Your task to perform on an android device: open app "Google Home" Image 0: 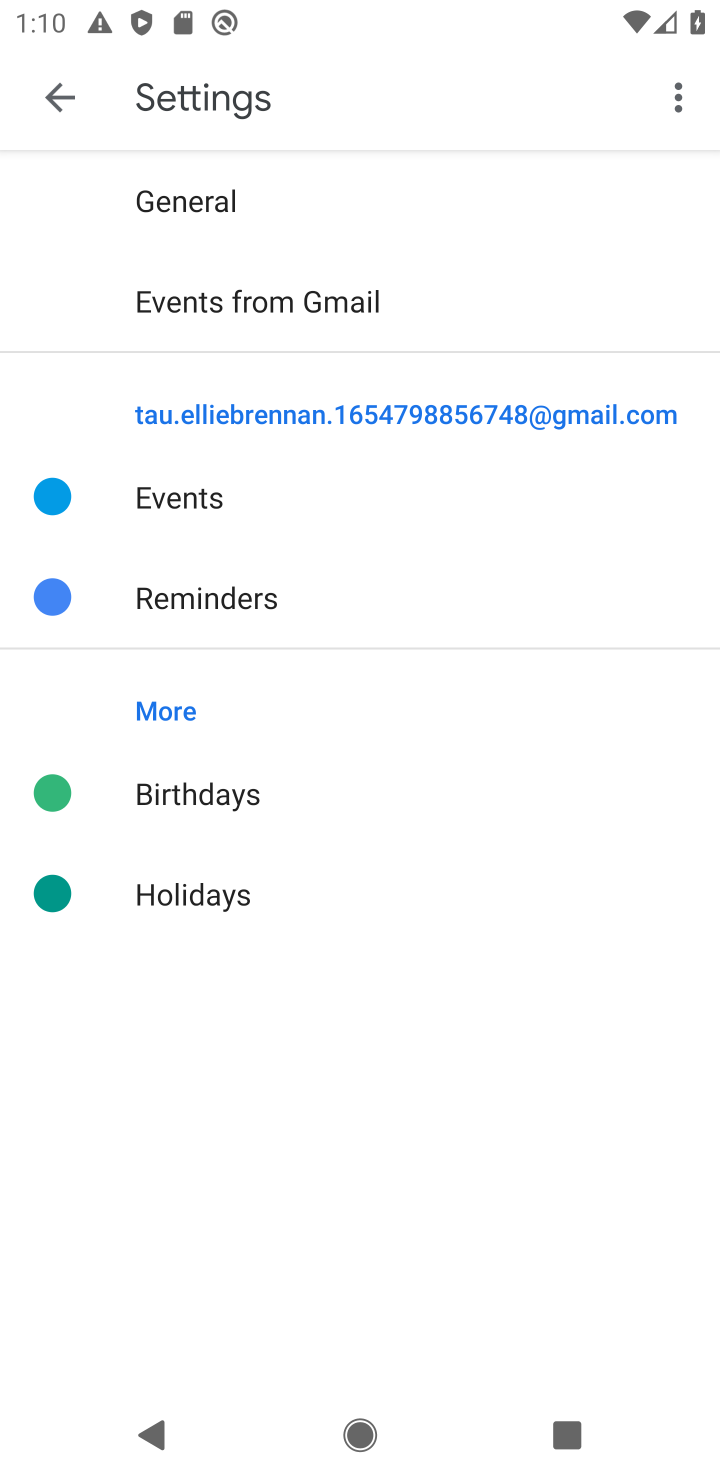
Step 0: press home button
Your task to perform on an android device: open app "Google Home" Image 1: 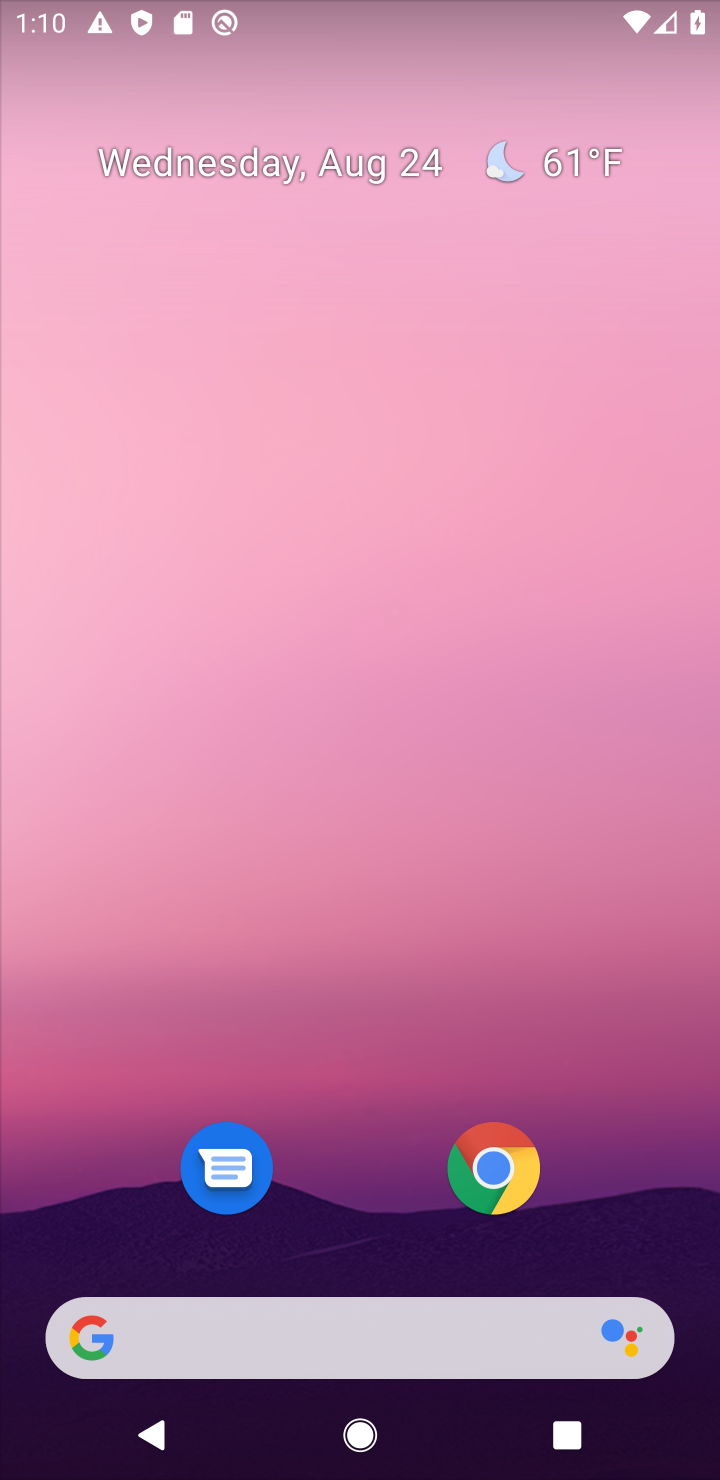
Step 1: drag from (568, 681) to (527, 126)
Your task to perform on an android device: open app "Google Home" Image 2: 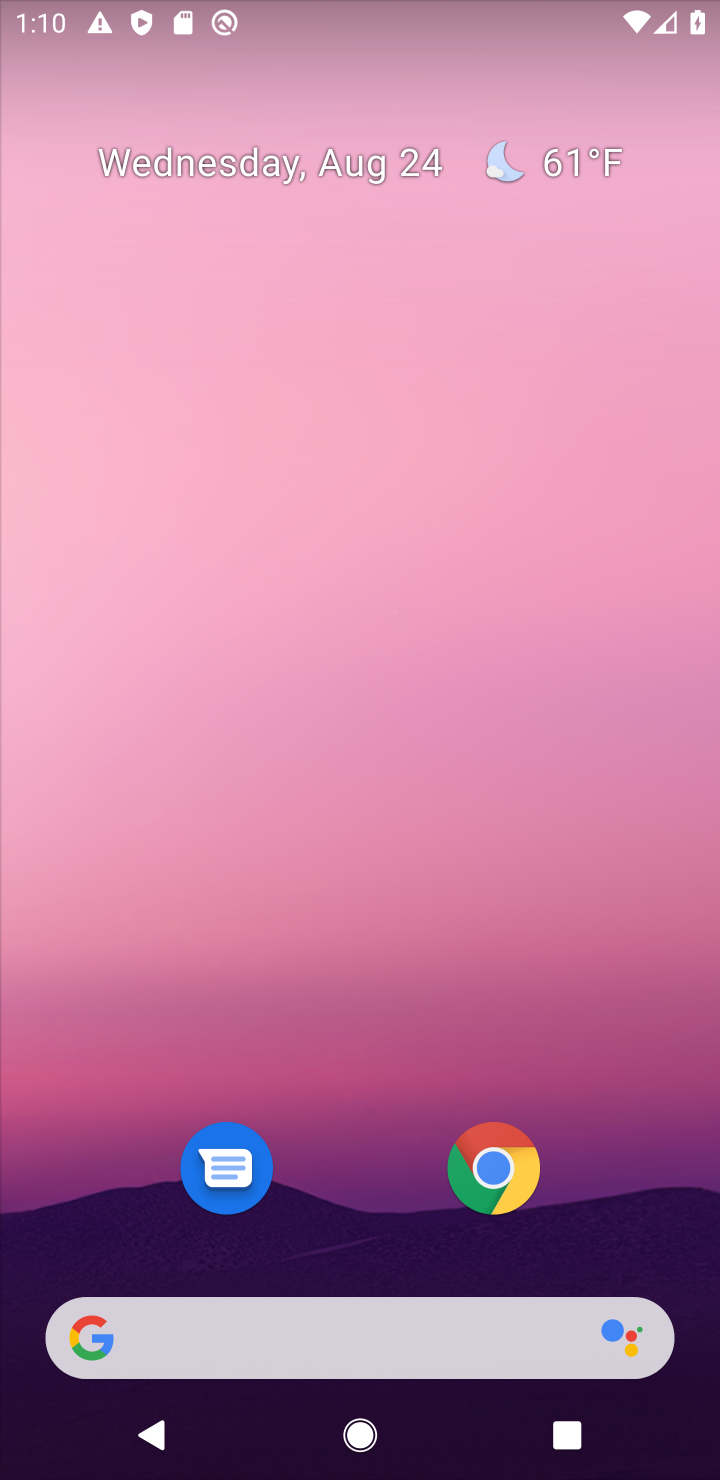
Step 2: drag from (679, 1334) to (611, 335)
Your task to perform on an android device: open app "Google Home" Image 3: 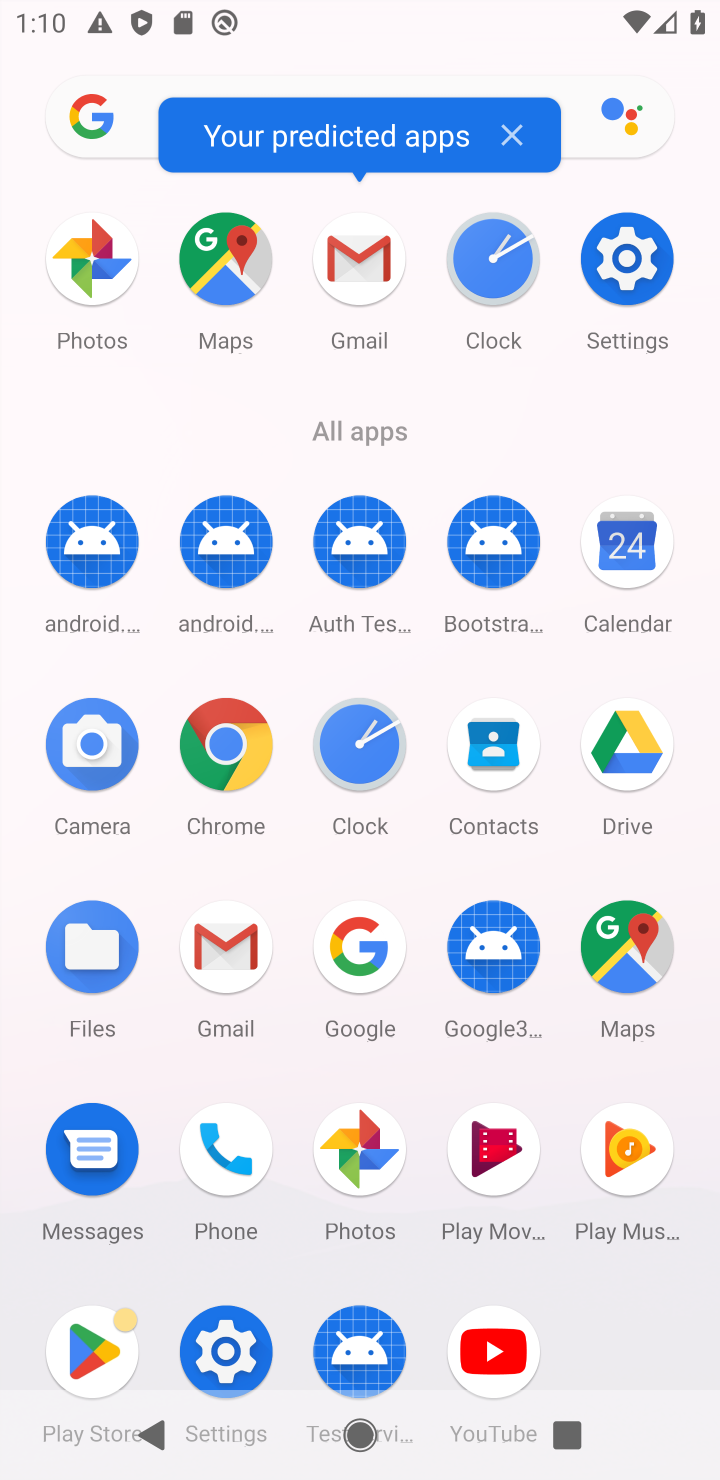
Step 3: click (93, 1359)
Your task to perform on an android device: open app "Google Home" Image 4: 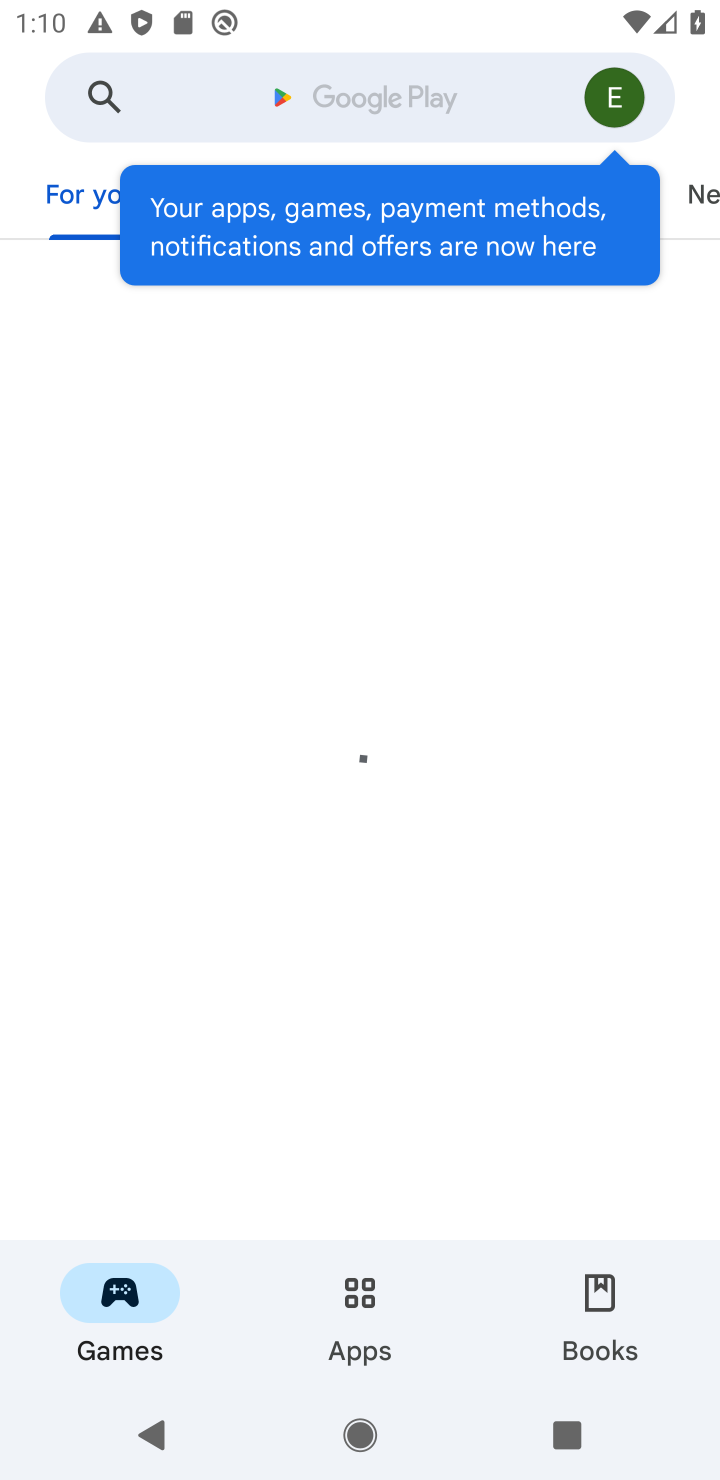
Step 4: click (107, 84)
Your task to perform on an android device: open app "Google Home" Image 5: 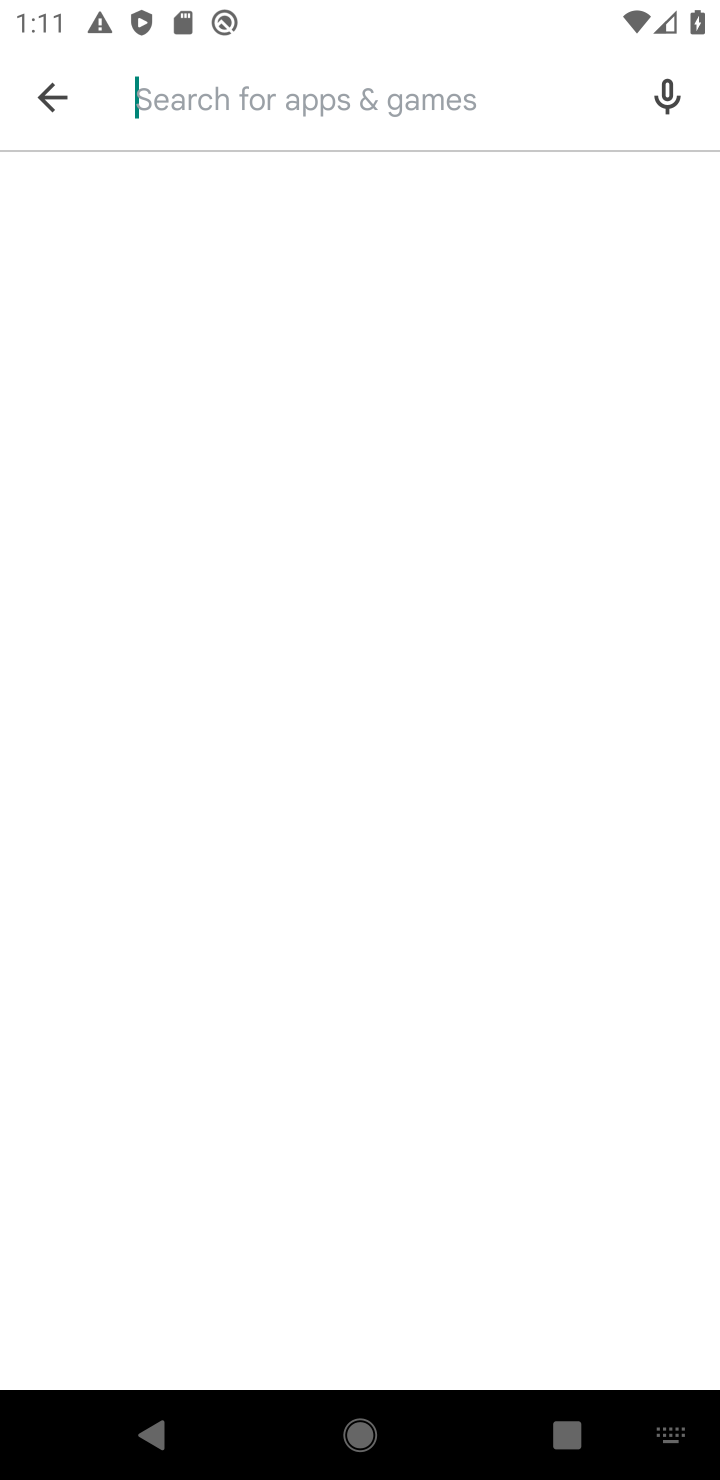
Step 5: type "Google Home"
Your task to perform on an android device: open app "Google Home" Image 6: 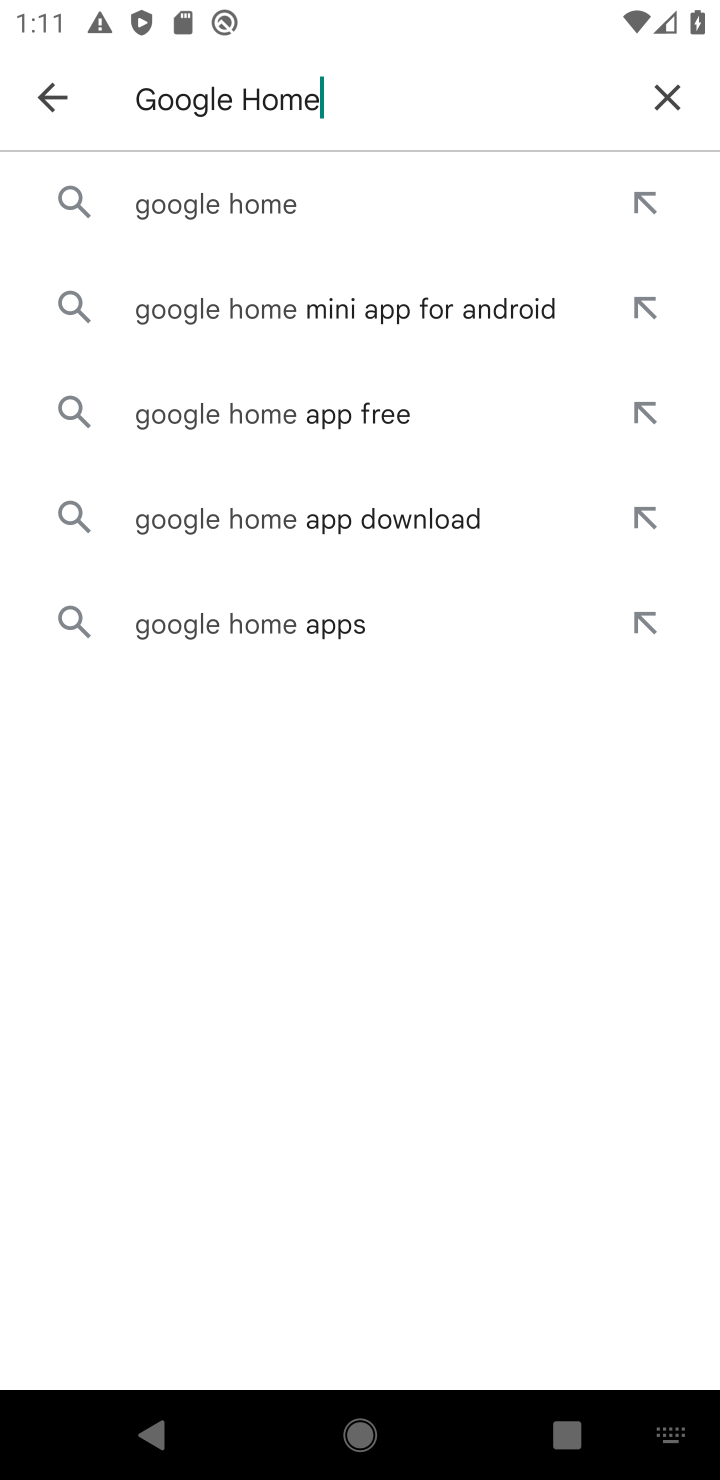
Step 6: click (182, 196)
Your task to perform on an android device: open app "Google Home" Image 7: 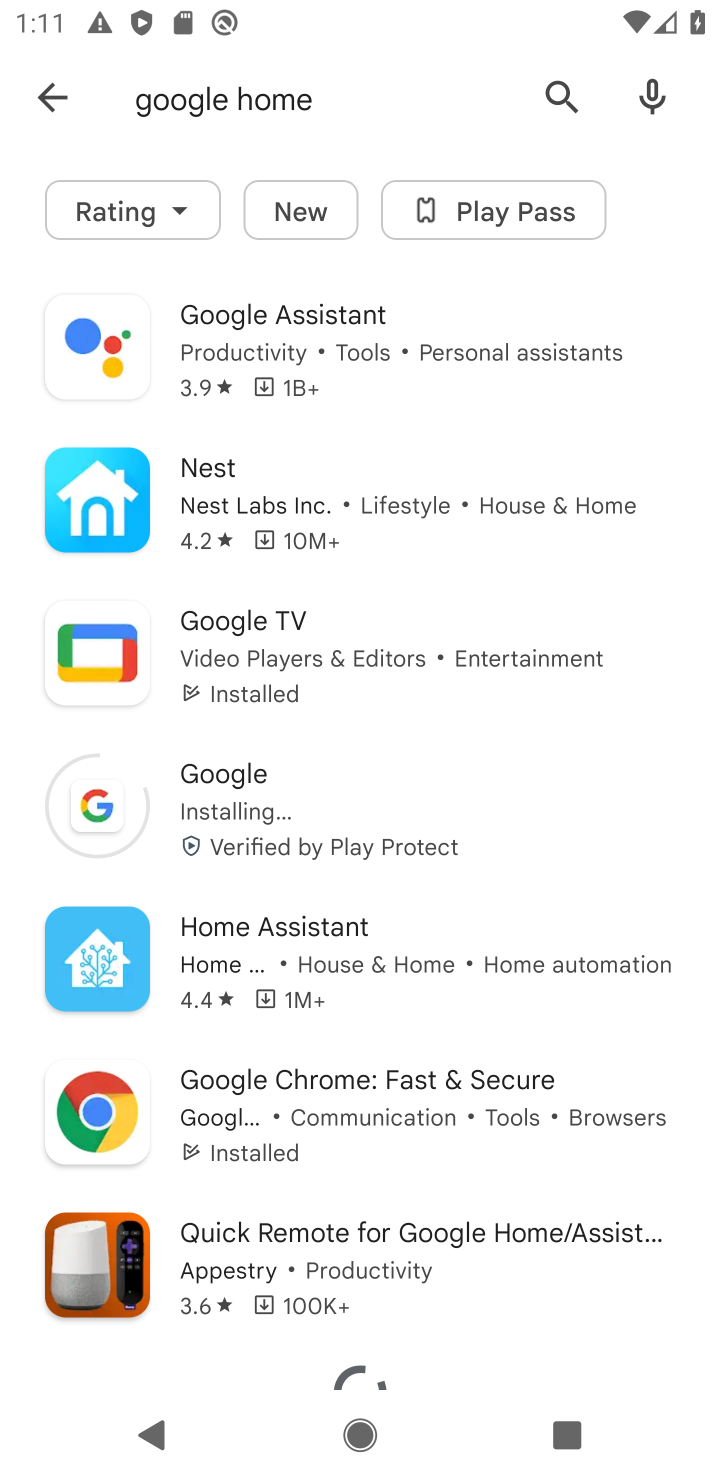
Step 7: drag from (486, 1162) to (541, 621)
Your task to perform on an android device: open app "Google Home" Image 8: 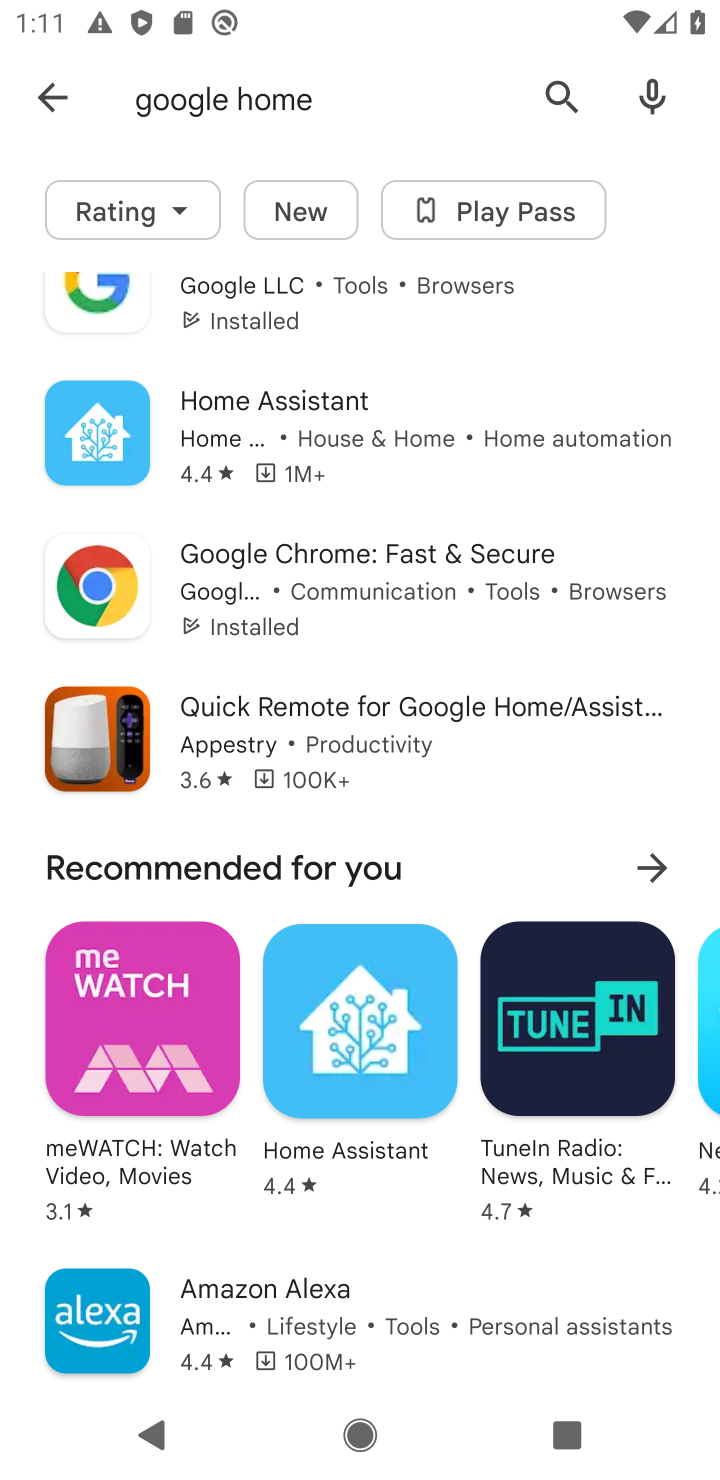
Step 8: drag from (465, 1099) to (477, 332)
Your task to perform on an android device: open app "Google Home" Image 9: 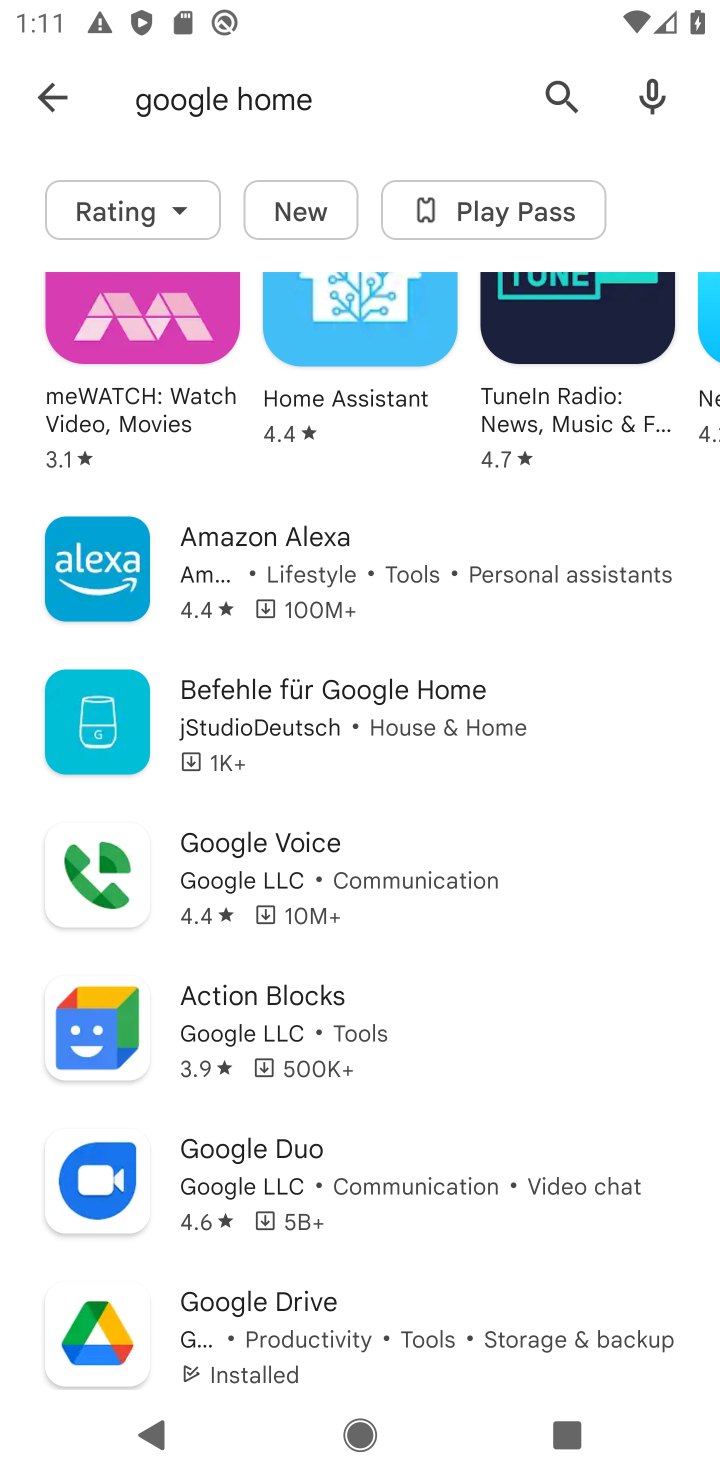
Step 9: drag from (443, 1102) to (469, 854)
Your task to perform on an android device: open app "Google Home" Image 10: 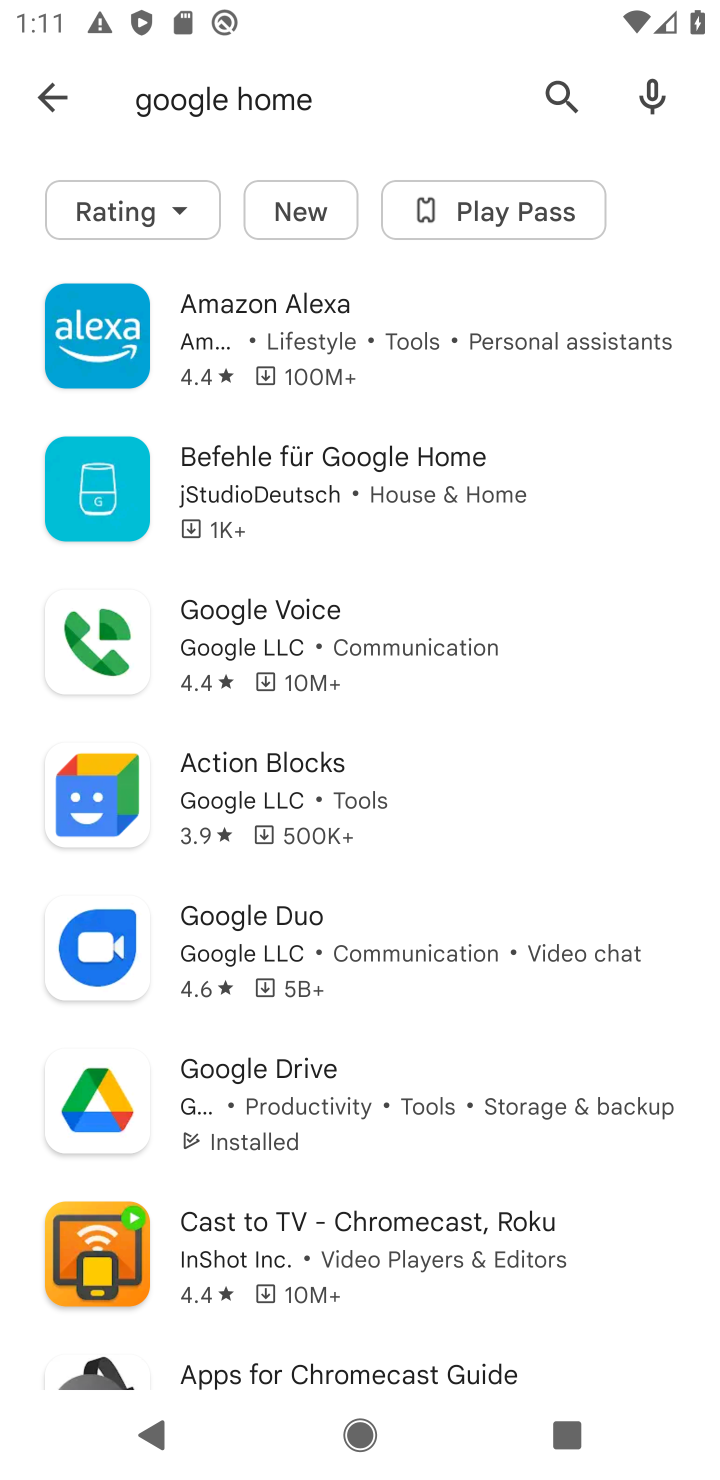
Step 10: drag from (449, 1211) to (446, 486)
Your task to perform on an android device: open app "Google Home" Image 11: 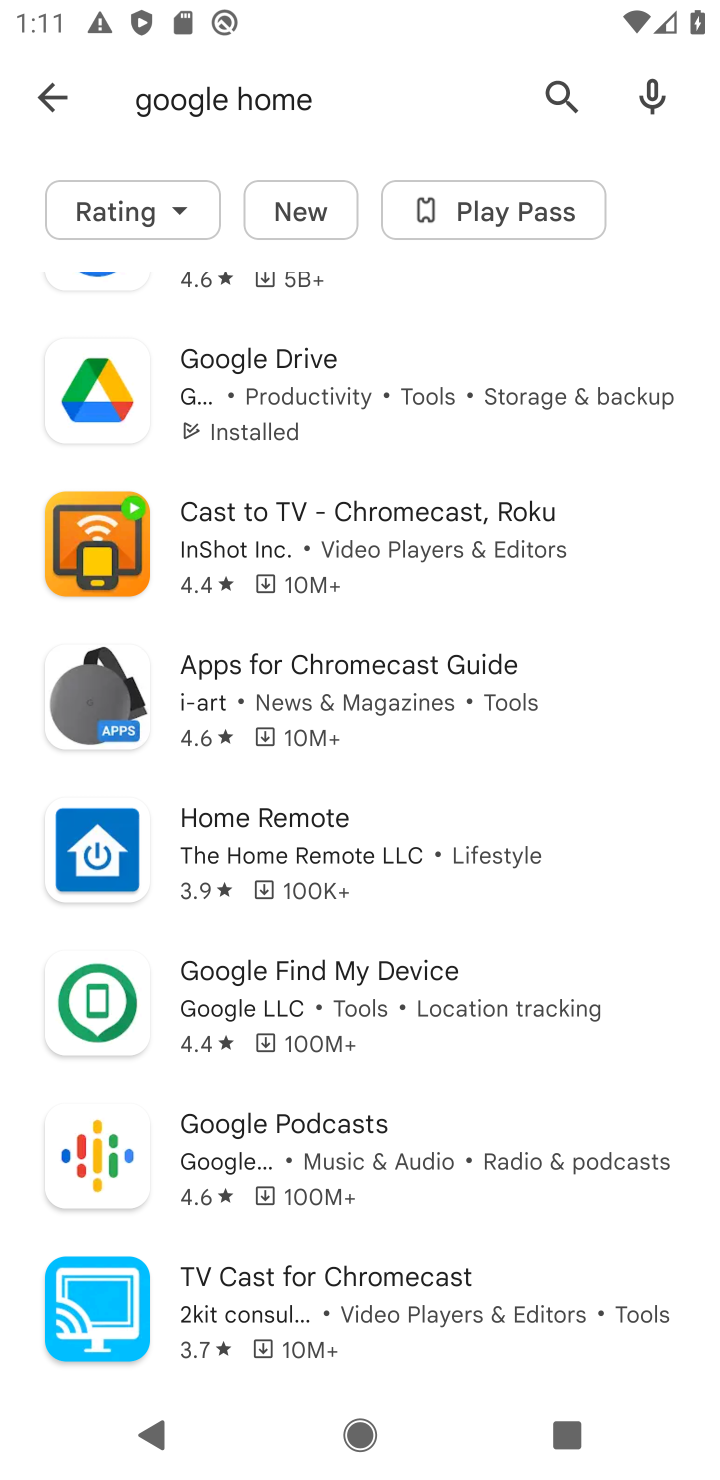
Step 11: click (471, 358)
Your task to perform on an android device: open app "Google Home" Image 12: 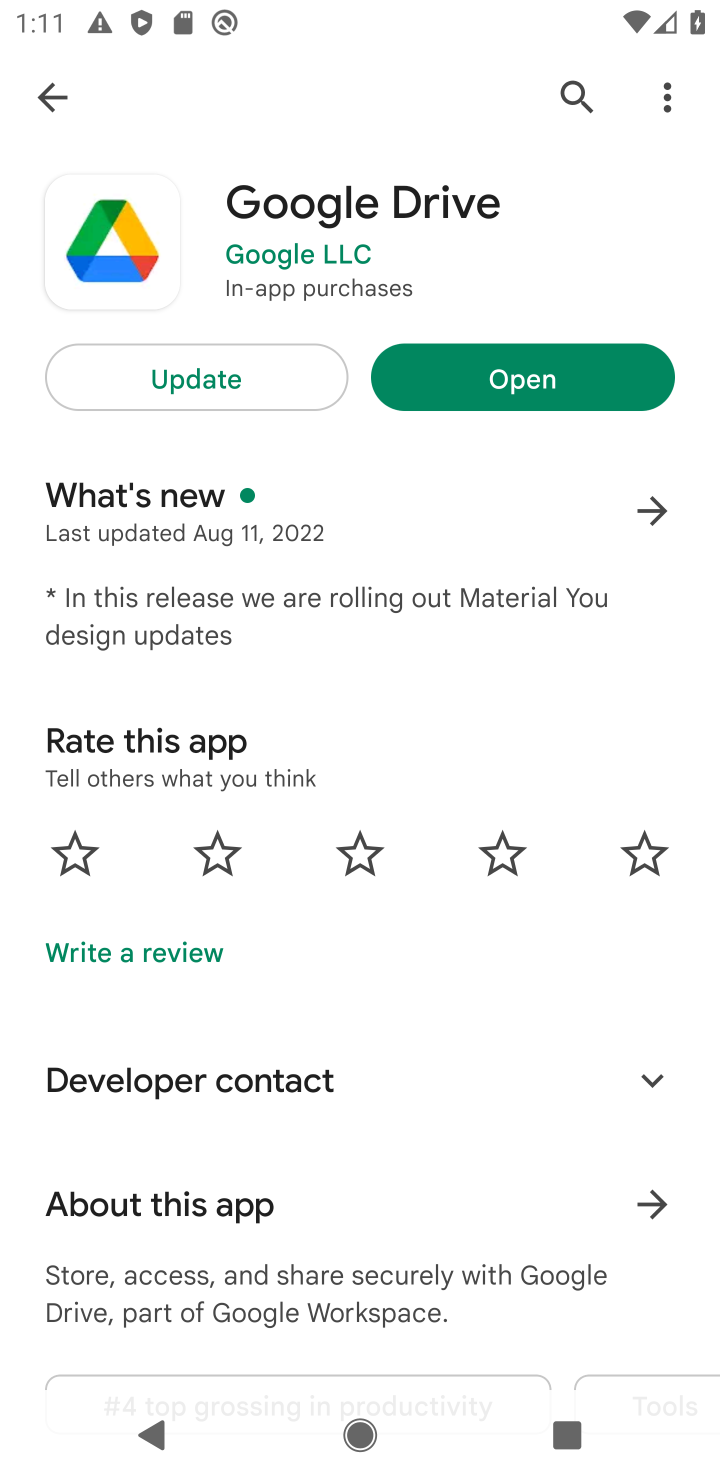
Step 12: task complete